Your task to perform on an android device: turn vacation reply on in the gmail app Image 0: 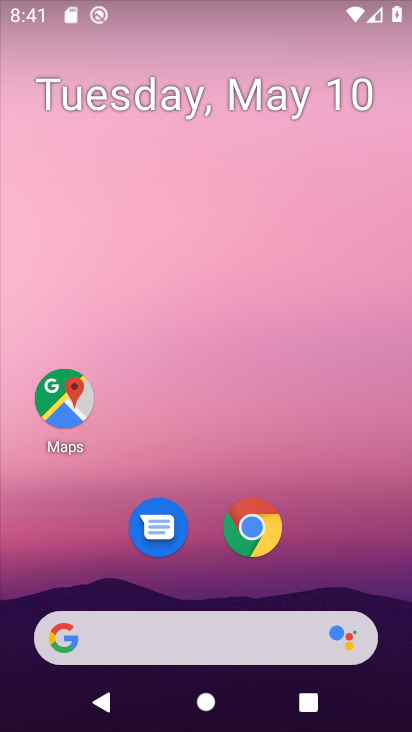
Step 0: drag from (343, 564) to (138, 117)
Your task to perform on an android device: turn vacation reply on in the gmail app Image 1: 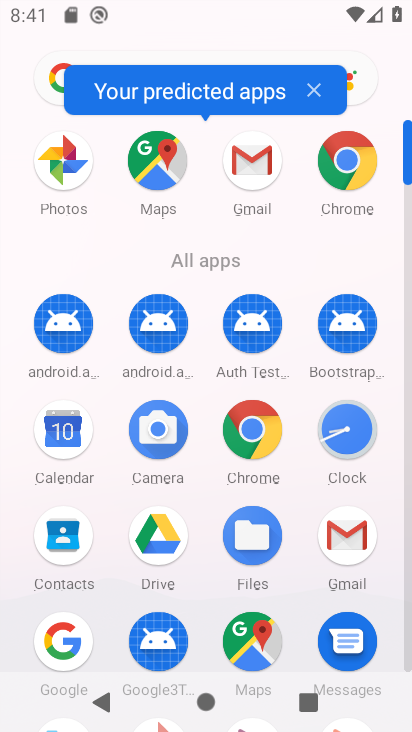
Step 1: click (346, 541)
Your task to perform on an android device: turn vacation reply on in the gmail app Image 2: 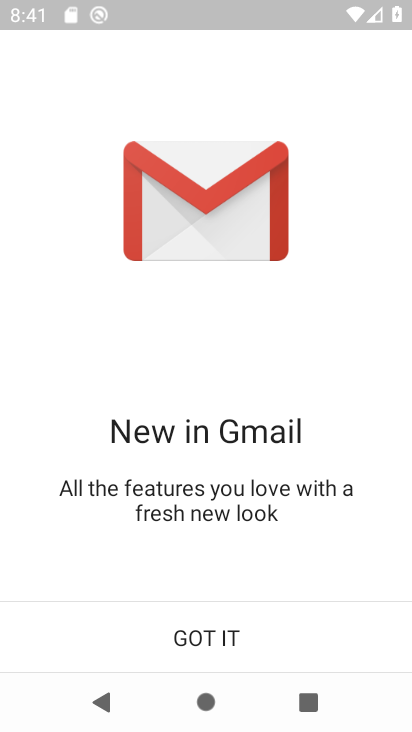
Step 2: click (208, 637)
Your task to perform on an android device: turn vacation reply on in the gmail app Image 3: 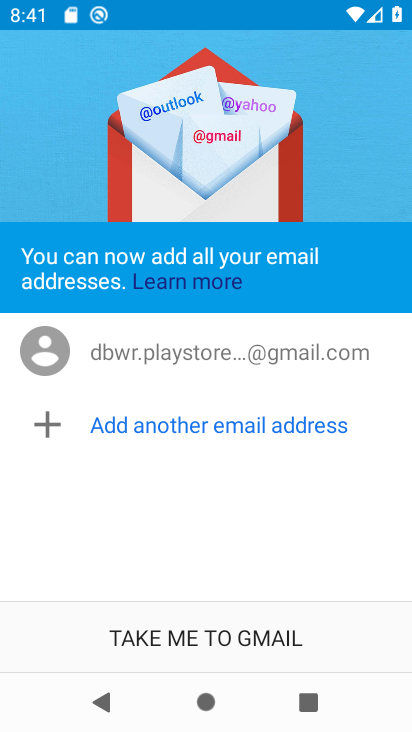
Step 3: click (236, 630)
Your task to perform on an android device: turn vacation reply on in the gmail app Image 4: 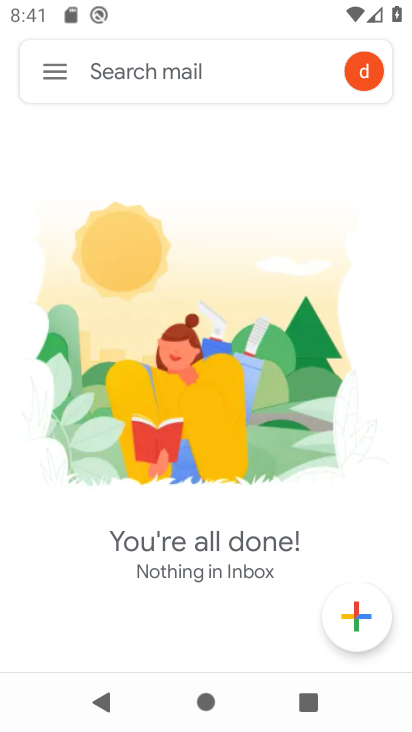
Step 4: click (55, 69)
Your task to perform on an android device: turn vacation reply on in the gmail app Image 5: 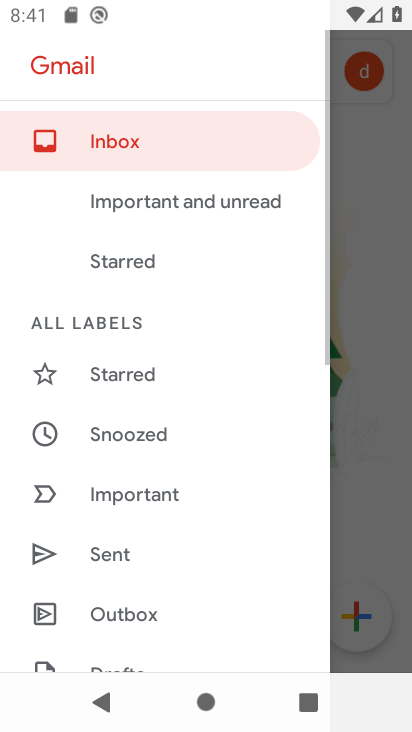
Step 5: drag from (135, 622) to (111, 143)
Your task to perform on an android device: turn vacation reply on in the gmail app Image 6: 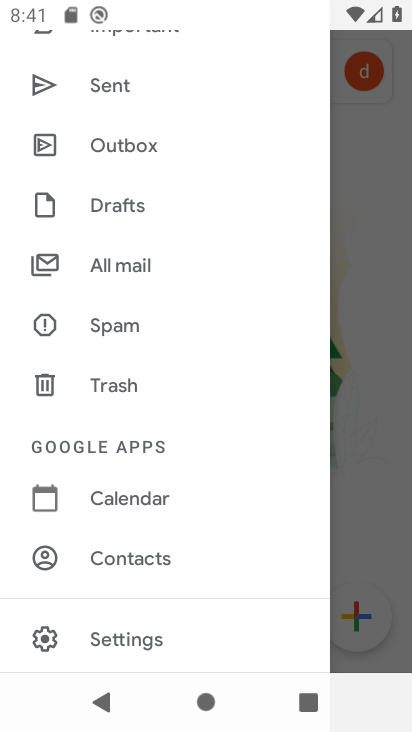
Step 6: click (133, 637)
Your task to perform on an android device: turn vacation reply on in the gmail app Image 7: 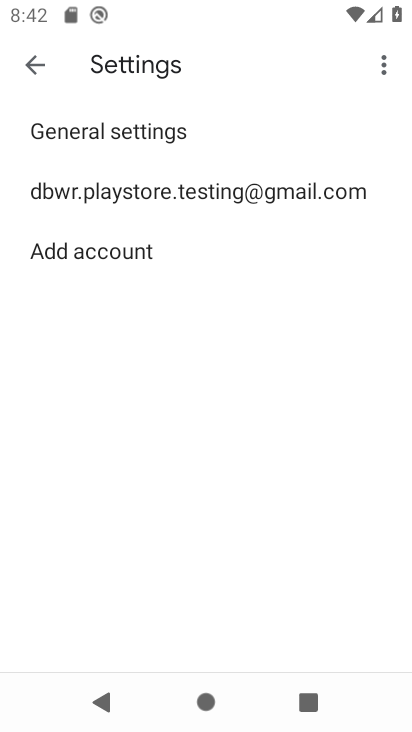
Step 7: click (131, 198)
Your task to perform on an android device: turn vacation reply on in the gmail app Image 8: 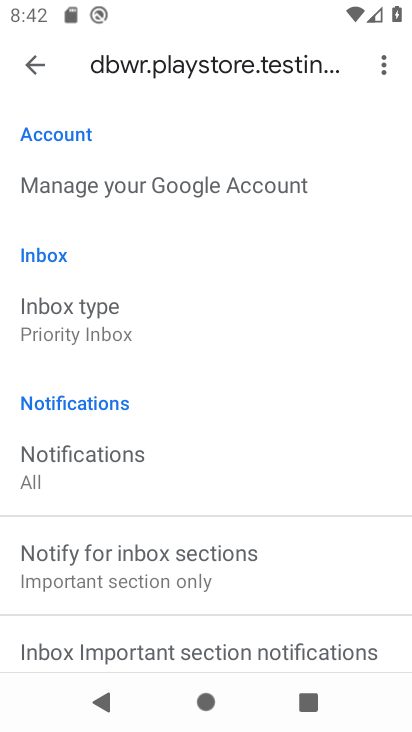
Step 8: drag from (159, 586) to (163, 133)
Your task to perform on an android device: turn vacation reply on in the gmail app Image 9: 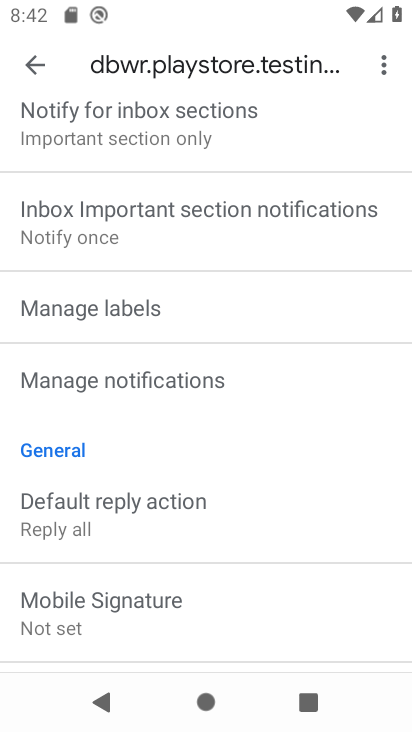
Step 9: drag from (145, 623) to (156, 270)
Your task to perform on an android device: turn vacation reply on in the gmail app Image 10: 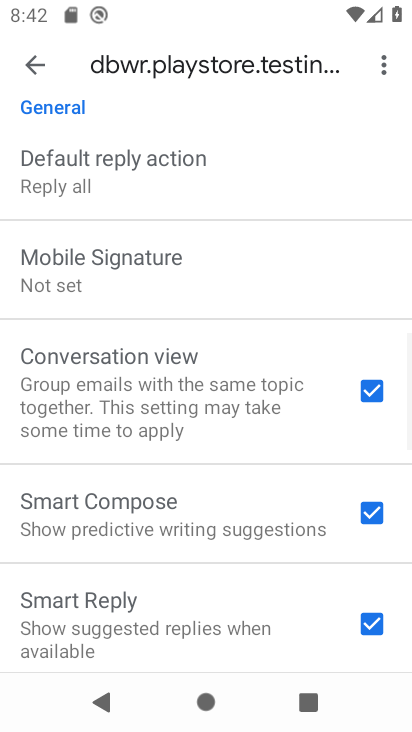
Step 10: drag from (129, 631) to (127, 308)
Your task to perform on an android device: turn vacation reply on in the gmail app Image 11: 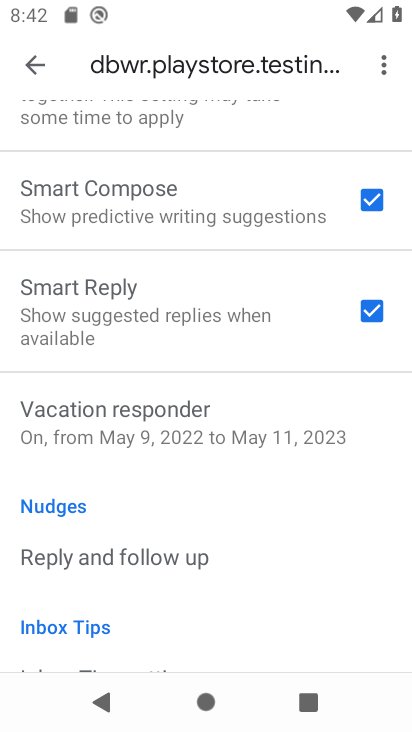
Step 11: click (142, 406)
Your task to perform on an android device: turn vacation reply on in the gmail app Image 12: 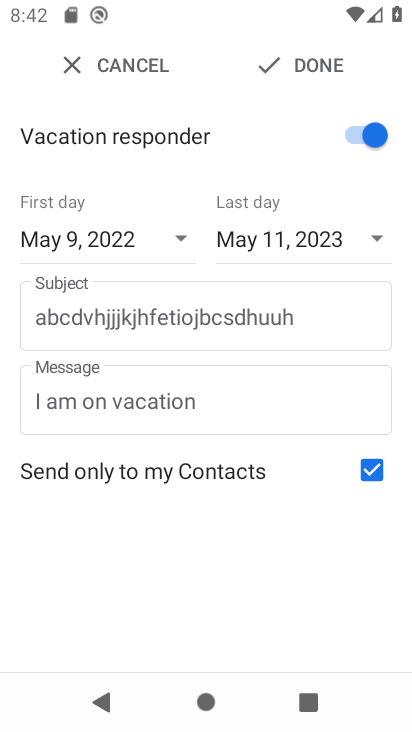
Step 12: task complete